Your task to perform on an android device: check battery use Image 0: 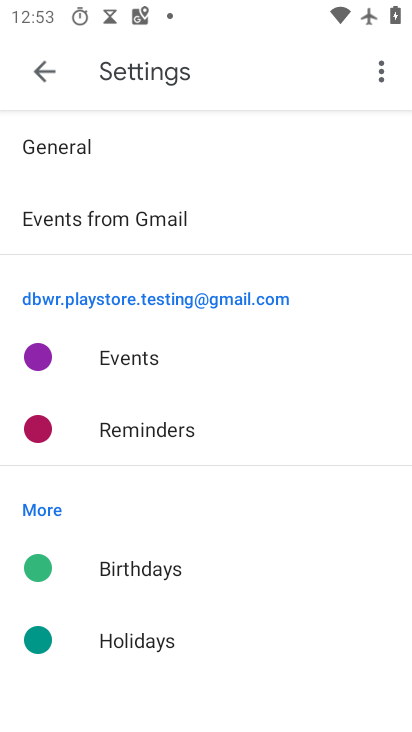
Step 0: press home button
Your task to perform on an android device: check battery use Image 1: 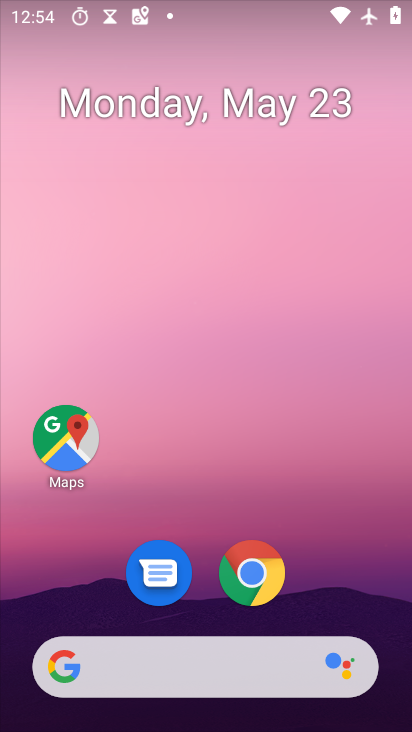
Step 1: drag from (212, 646) to (322, 133)
Your task to perform on an android device: check battery use Image 2: 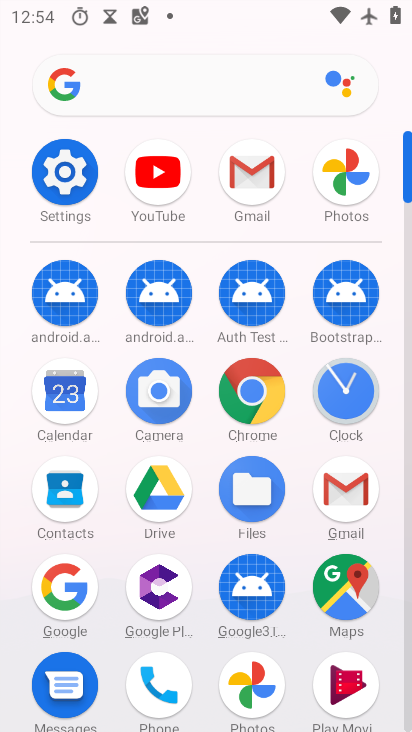
Step 2: click (52, 192)
Your task to perform on an android device: check battery use Image 3: 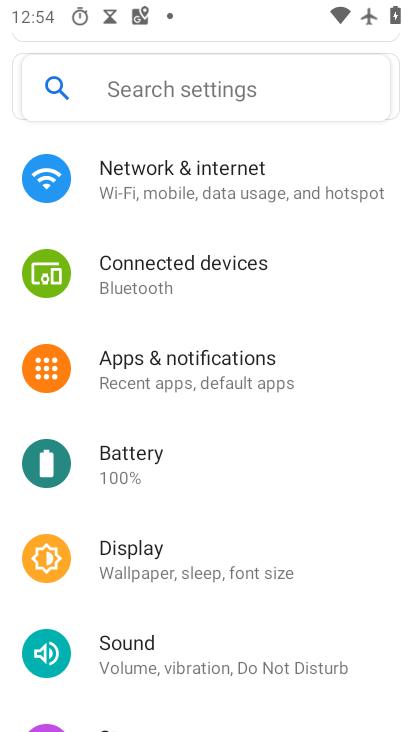
Step 3: click (127, 460)
Your task to perform on an android device: check battery use Image 4: 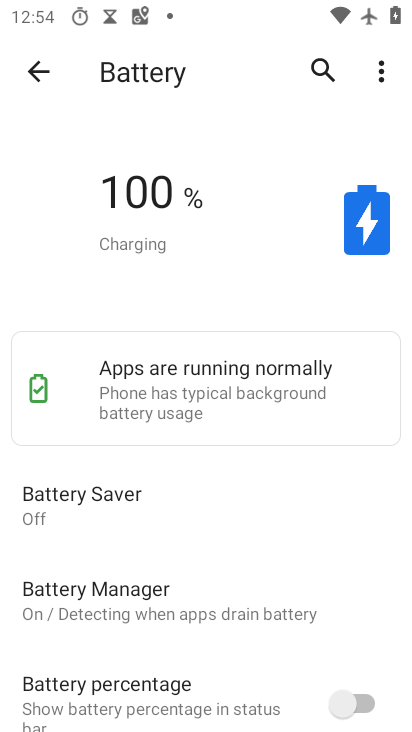
Step 4: click (378, 83)
Your task to perform on an android device: check battery use Image 5: 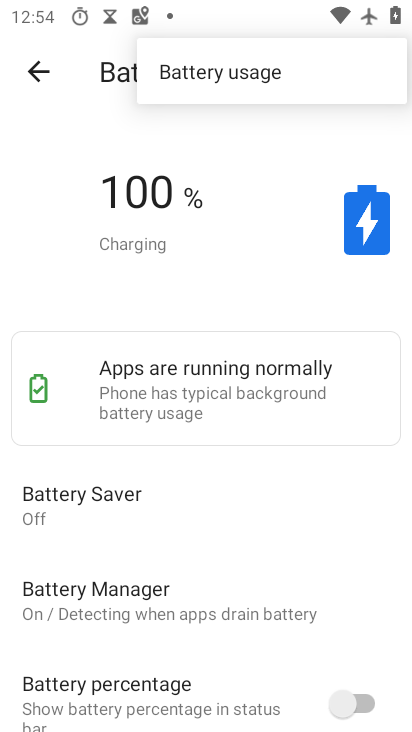
Step 5: click (251, 73)
Your task to perform on an android device: check battery use Image 6: 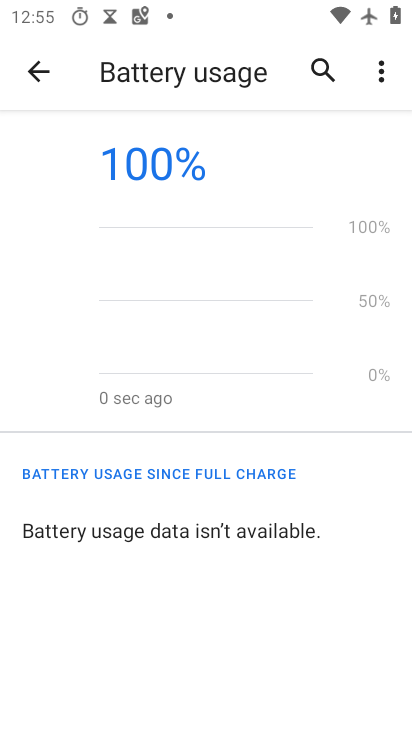
Step 6: task complete